Your task to perform on an android device: add a label to a message in the gmail app Image 0: 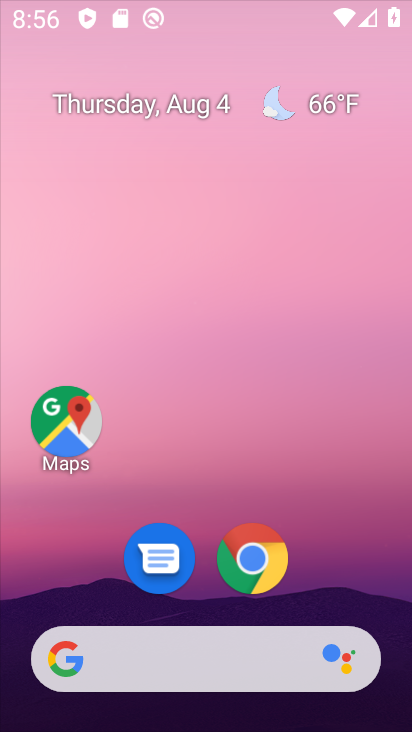
Step 0: drag from (333, 582) to (310, 17)
Your task to perform on an android device: add a label to a message in the gmail app Image 1: 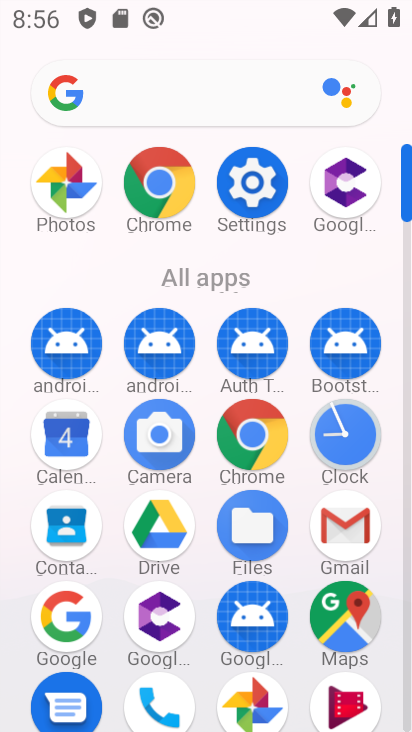
Step 1: click (348, 518)
Your task to perform on an android device: add a label to a message in the gmail app Image 2: 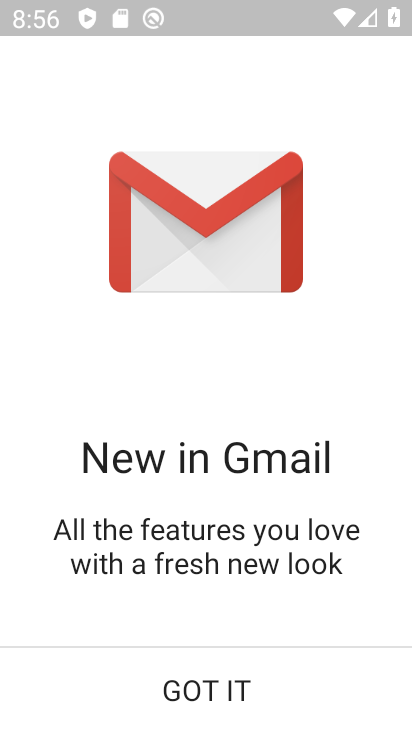
Step 2: click (190, 676)
Your task to perform on an android device: add a label to a message in the gmail app Image 3: 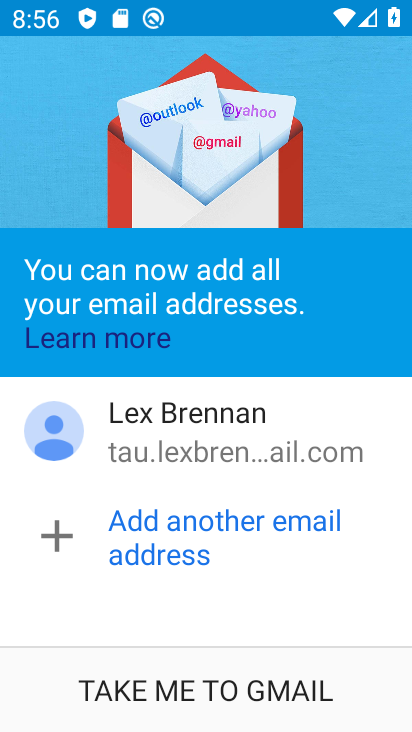
Step 3: click (190, 673)
Your task to perform on an android device: add a label to a message in the gmail app Image 4: 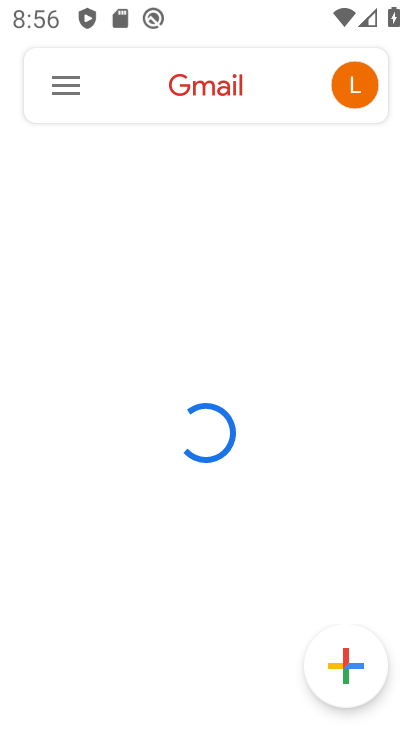
Step 4: click (60, 83)
Your task to perform on an android device: add a label to a message in the gmail app Image 5: 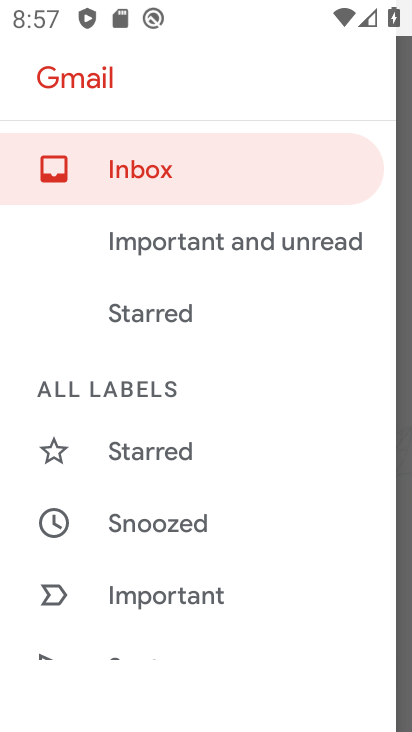
Step 5: drag from (248, 540) to (268, 206)
Your task to perform on an android device: add a label to a message in the gmail app Image 6: 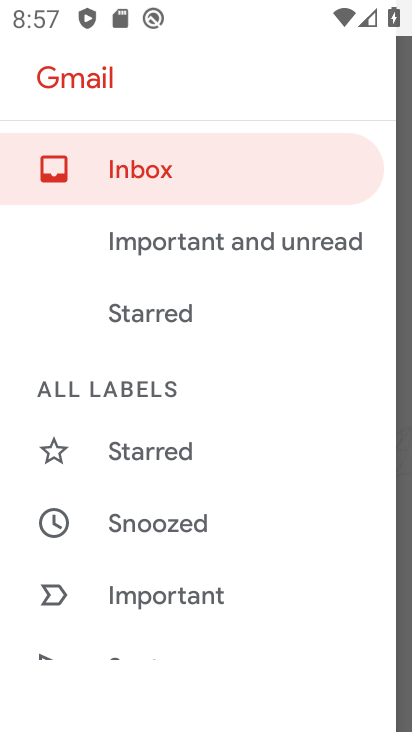
Step 6: drag from (253, 607) to (299, 368)
Your task to perform on an android device: add a label to a message in the gmail app Image 7: 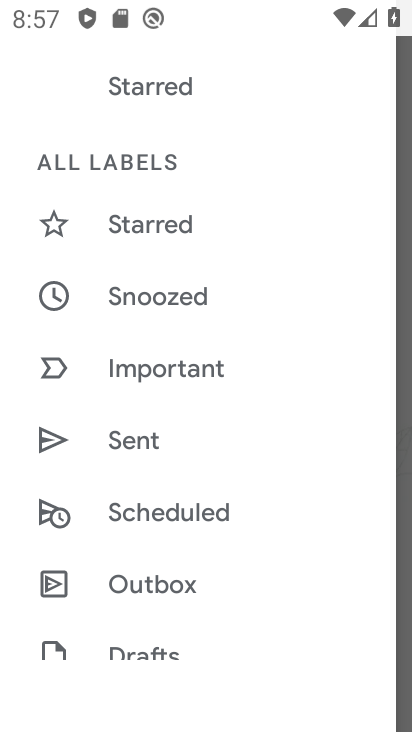
Step 7: drag from (171, 540) to (209, 169)
Your task to perform on an android device: add a label to a message in the gmail app Image 8: 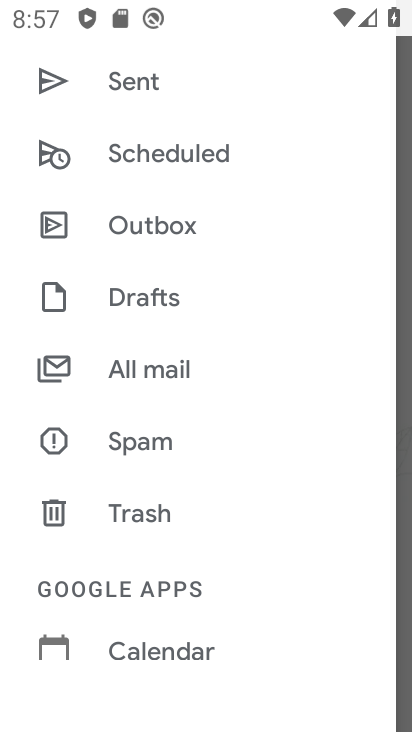
Step 8: click (135, 363)
Your task to perform on an android device: add a label to a message in the gmail app Image 9: 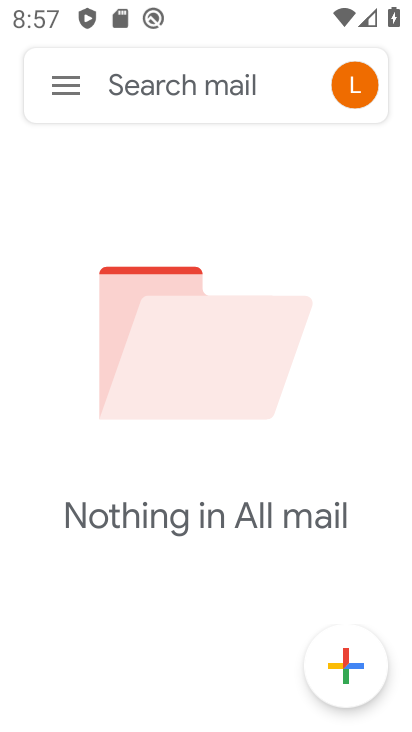
Step 9: task complete